Your task to perform on an android device: Open Google Chrome and click the shortcut for Amazon.com Image 0: 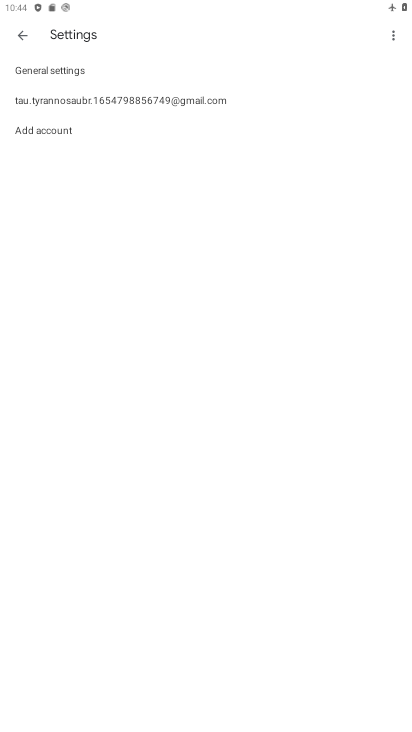
Step 0: click (24, 34)
Your task to perform on an android device: Open Google Chrome and click the shortcut for Amazon.com Image 1: 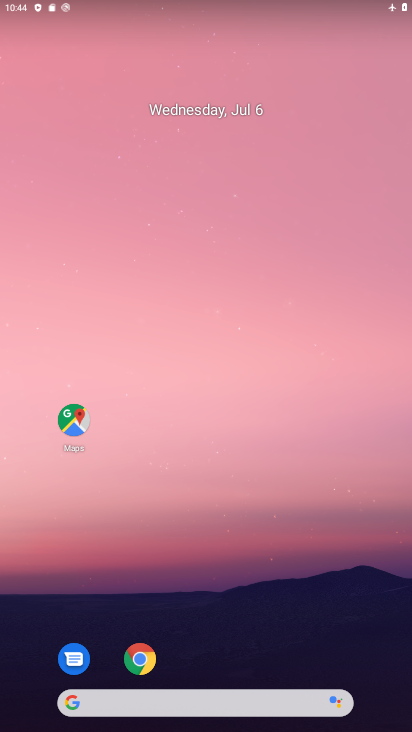
Step 1: click (158, 656)
Your task to perform on an android device: Open Google Chrome and click the shortcut for Amazon.com Image 2: 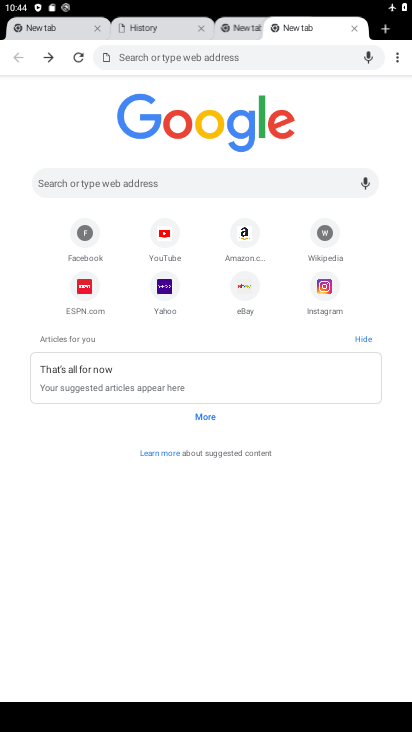
Step 2: click (245, 236)
Your task to perform on an android device: Open Google Chrome and click the shortcut for Amazon.com Image 3: 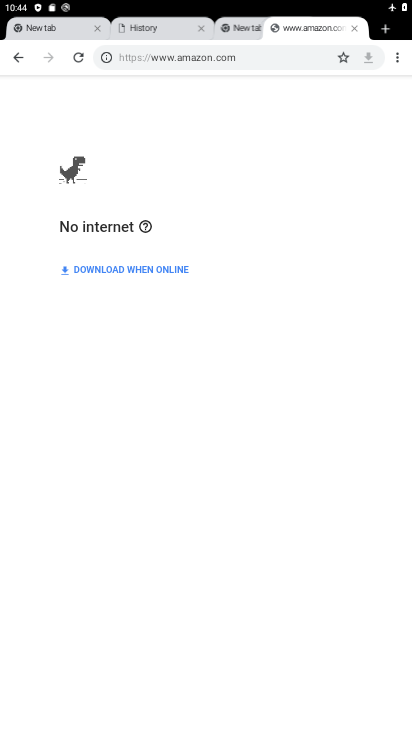
Step 3: task complete